Your task to perform on an android device: delete browsing data in the chrome app Image 0: 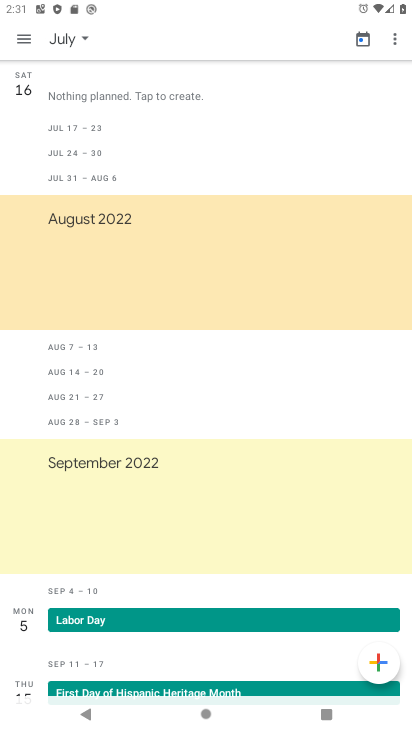
Step 0: press home button
Your task to perform on an android device: delete browsing data in the chrome app Image 1: 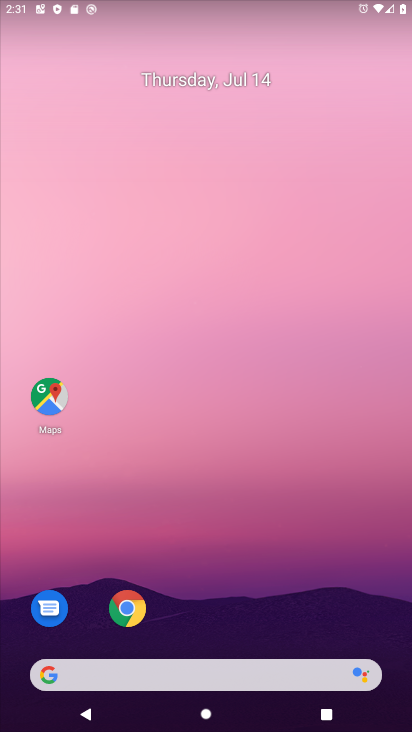
Step 1: click (128, 605)
Your task to perform on an android device: delete browsing data in the chrome app Image 2: 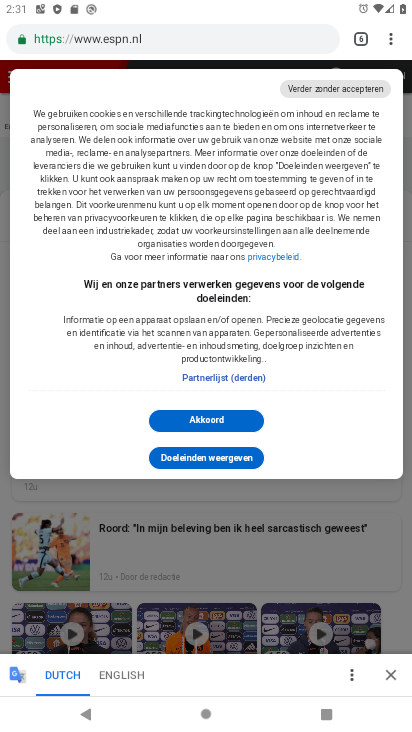
Step 2: click (393, 42)
Your task to perform on an android device: delete browsing data in the chrome app Image 3: 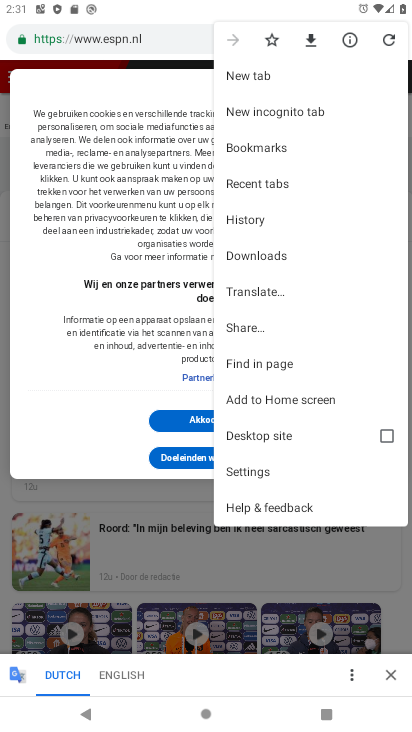
Step 3: click (252, 217)
Your task to perform on an android device: delete browsing data in the chrome app Image 4: 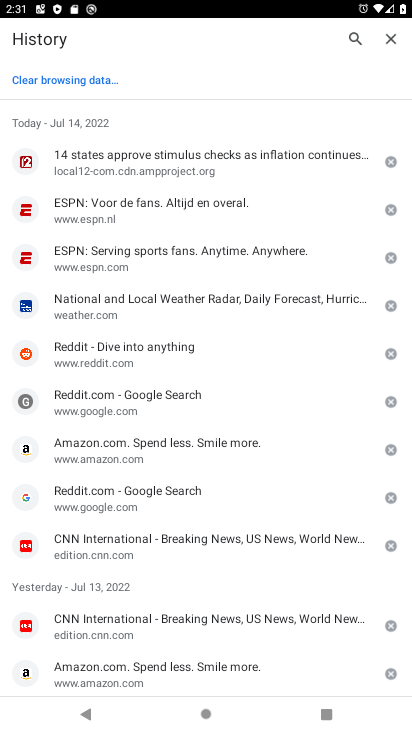
Step 4: click (98, 74)
Your task to perform on an android device: delete browsing data in the chrome app Image 5: 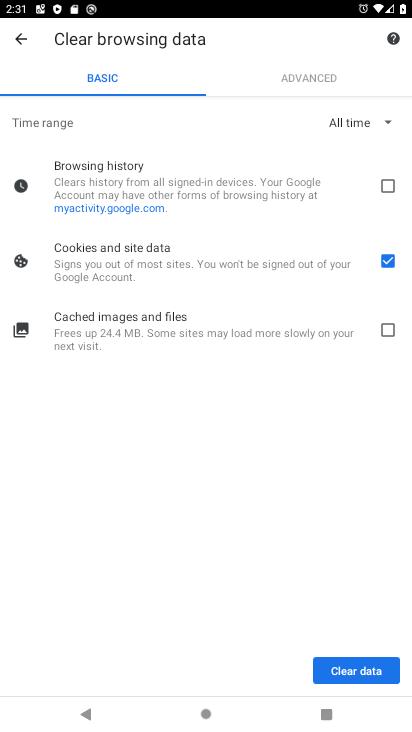
Step 5: click (388, 182)
Your task to perform on an android device: delete browsing data in the chrome app Image 6: 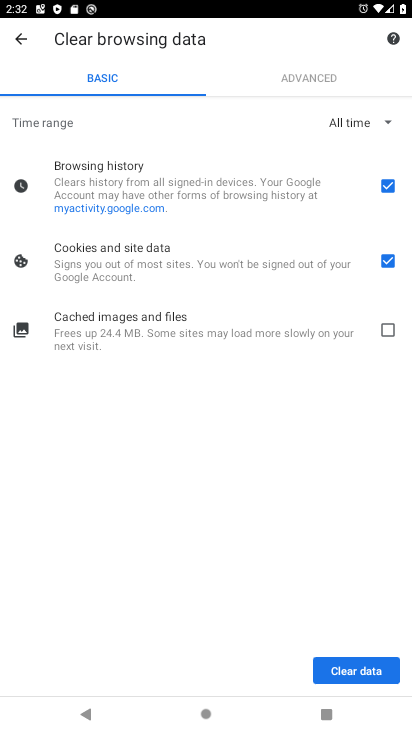
Step 6: click (390, 253)
Your task to perform on an android device: delete browsing data in the chrome app Image 7: 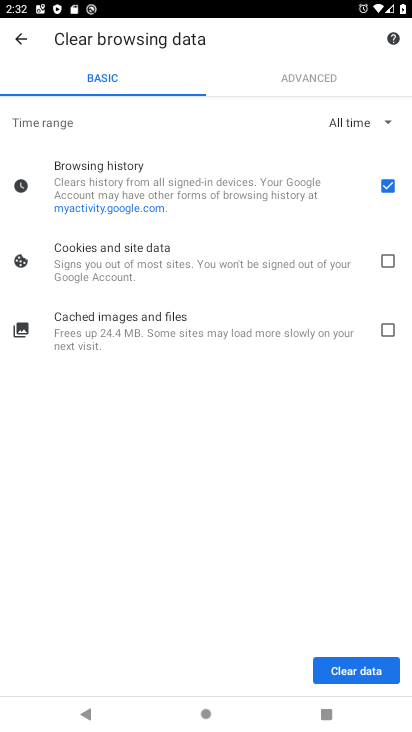
Step 7: click (368, 664)
Your task to perform on an android device: delete browsing data in the chrome app Image 8: 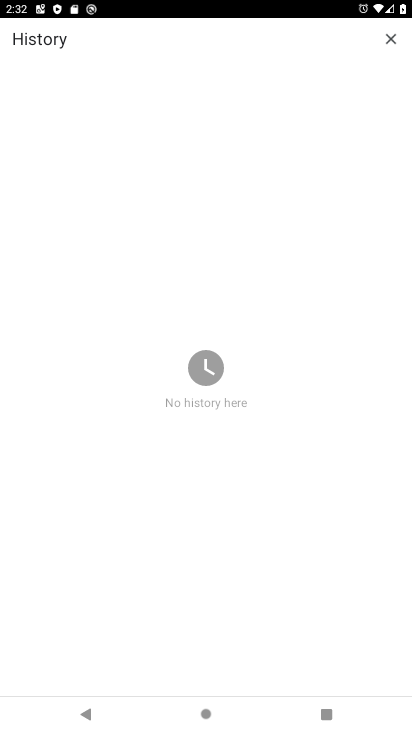
Step 8: task complete